Your task to perform on an android device: Look up the best rated 3d printer on Ali Express Image 0: 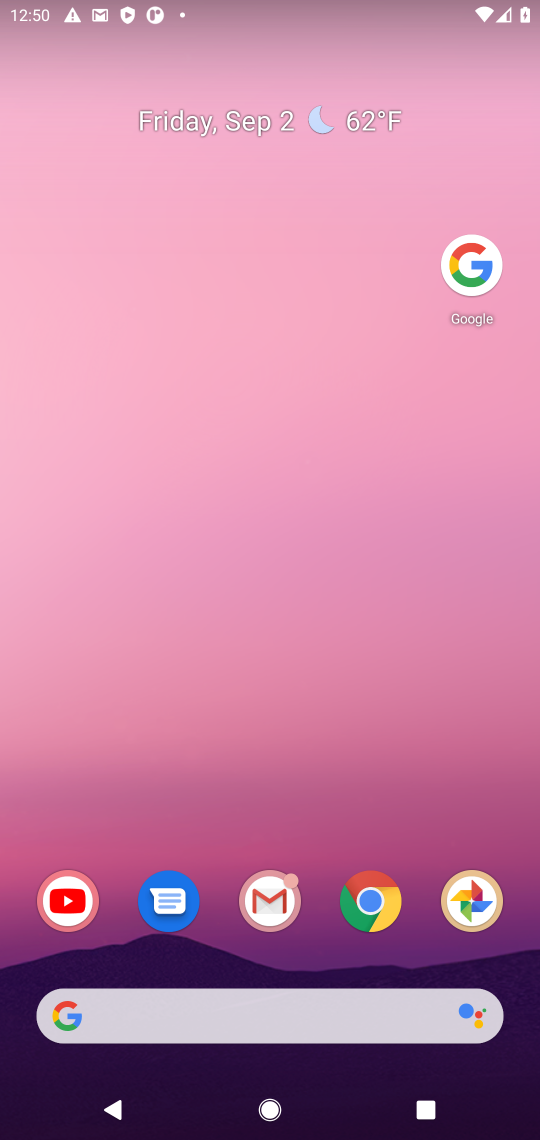
Step 0: click (467, 252)
Your task to perform on an android device: Look up the best rated 3d printer on Ali Express Image 1: 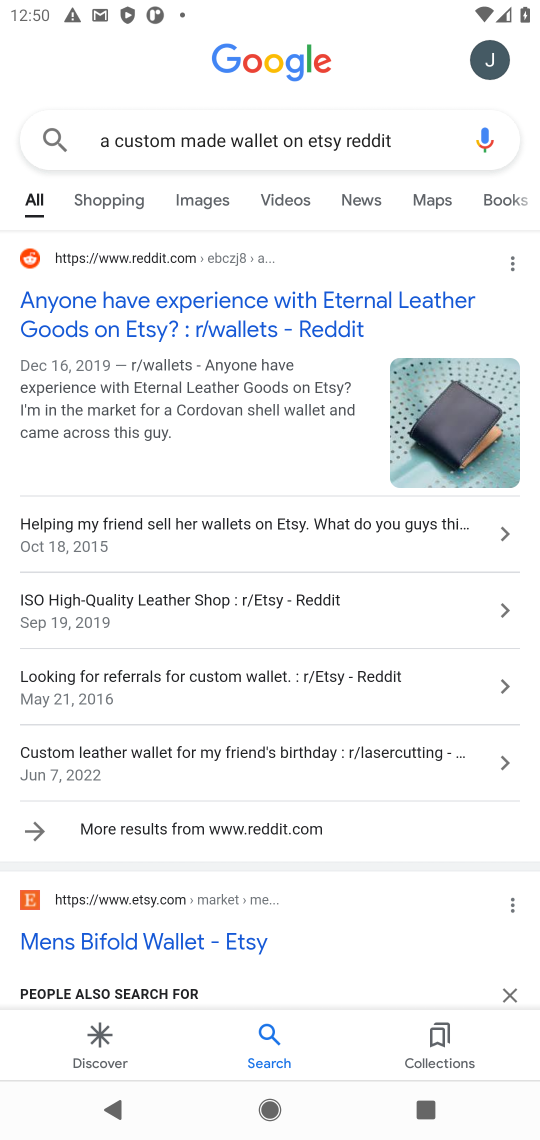
Step 1: click (392, 142)
Your task to perform on an android device: Look up the best rated 3d printer on Ali Express Image 2: 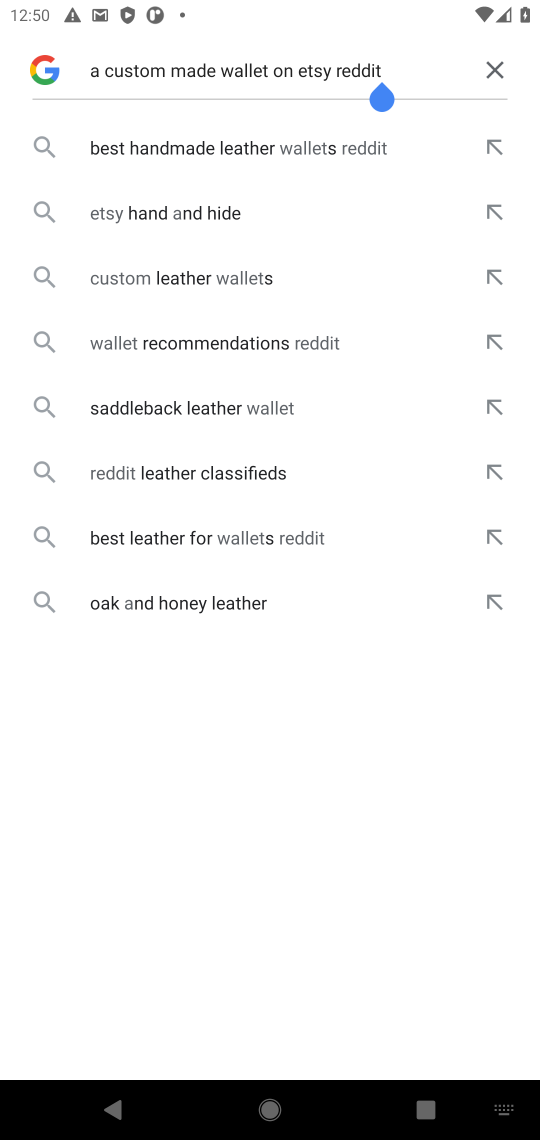
Step 2: click (487, 64)
Your task to perform on an android device: Look up the best rated 3d printer on Ali Express Image 3: 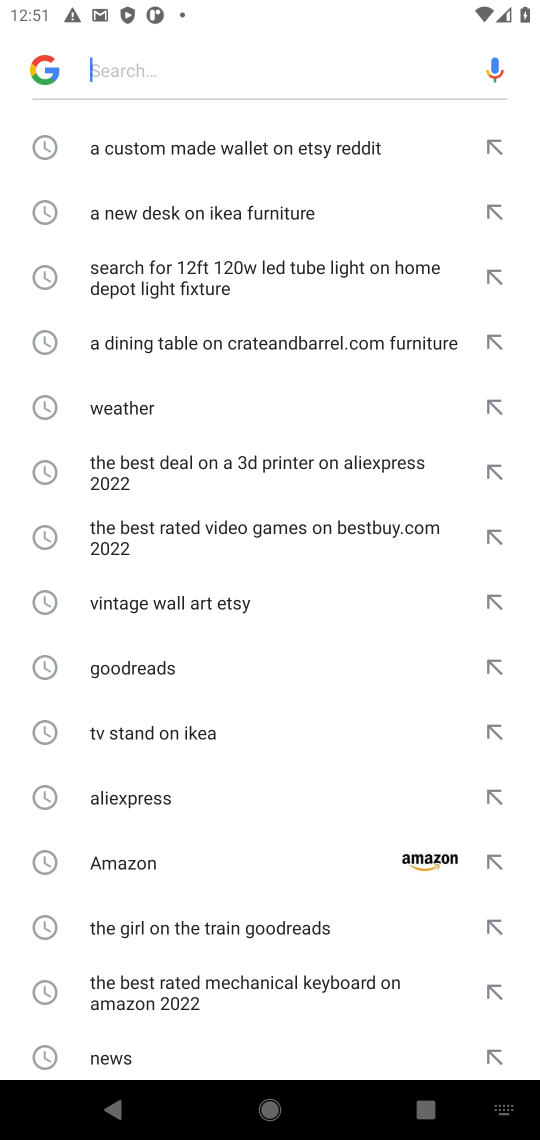
Step 3: click (277, 74)
Your task to perform on an android device: Look up the best rated 3d printer on Ali Express Image 4: 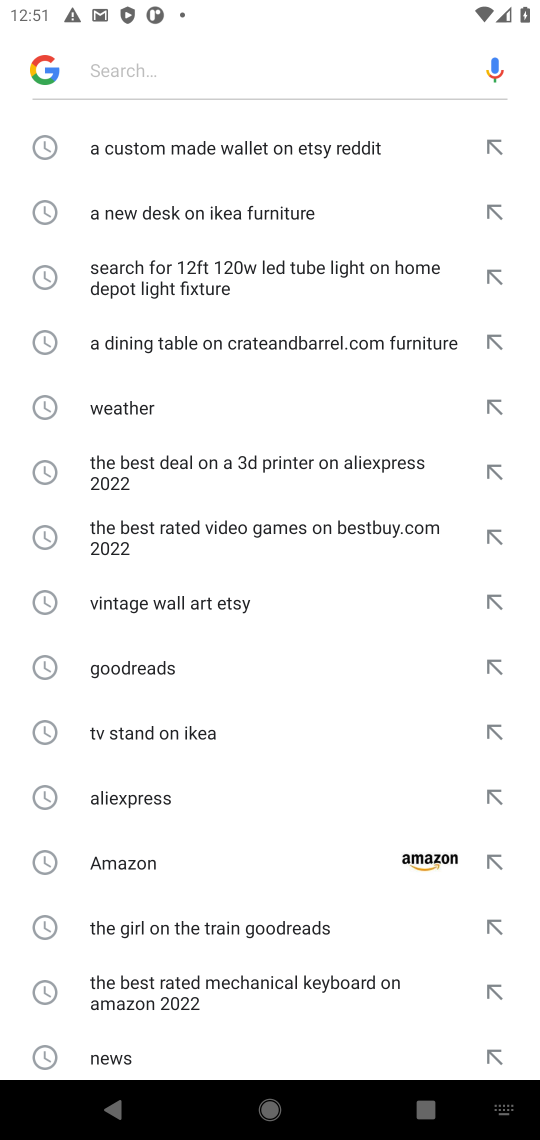
Step 4: type "the best rated 3d printer on Ali Express "
Your task to perform on an android device: Look up the best rated 3d printer on Ali Express Image 5: 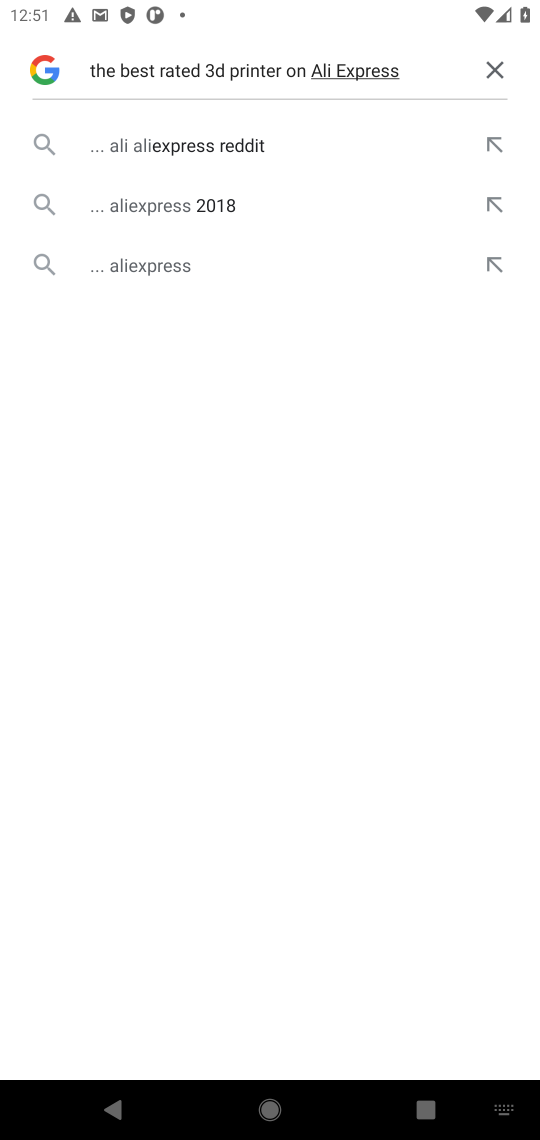
Step 5: click (143, 141)
Your task to perform on an android device: Look up the best rated 3d printer on Ali Express Image 6: 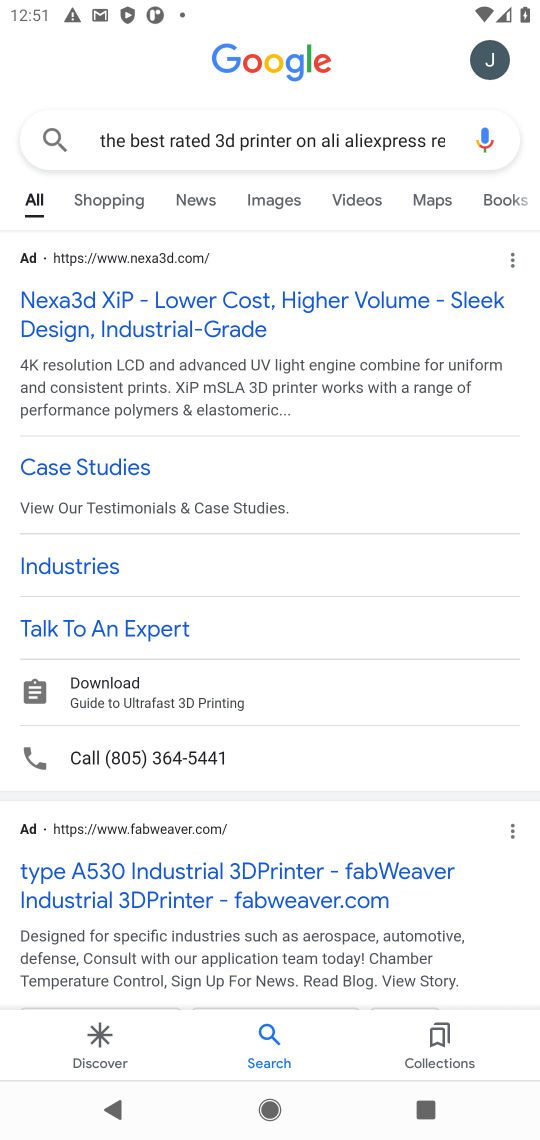
Step 6: click (180, 319)
Your task to perform on an android device: Look up the best rated 3d printer on Ali Express Image 7: 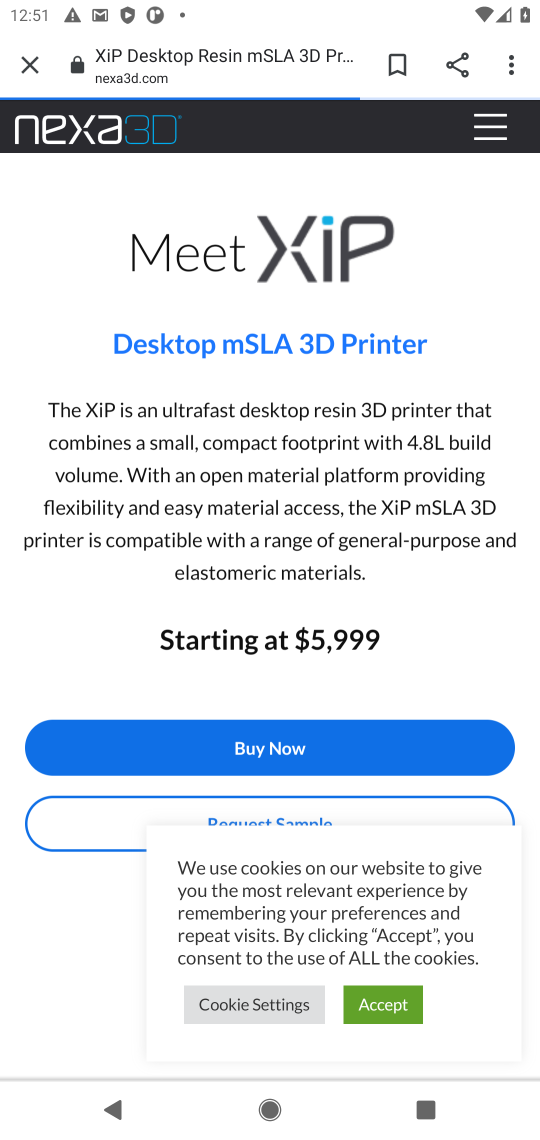
Step 7: click (24, 64)
Your task to perform on an android device: Look up the best rated 3d printer on Ali Express Image 8: 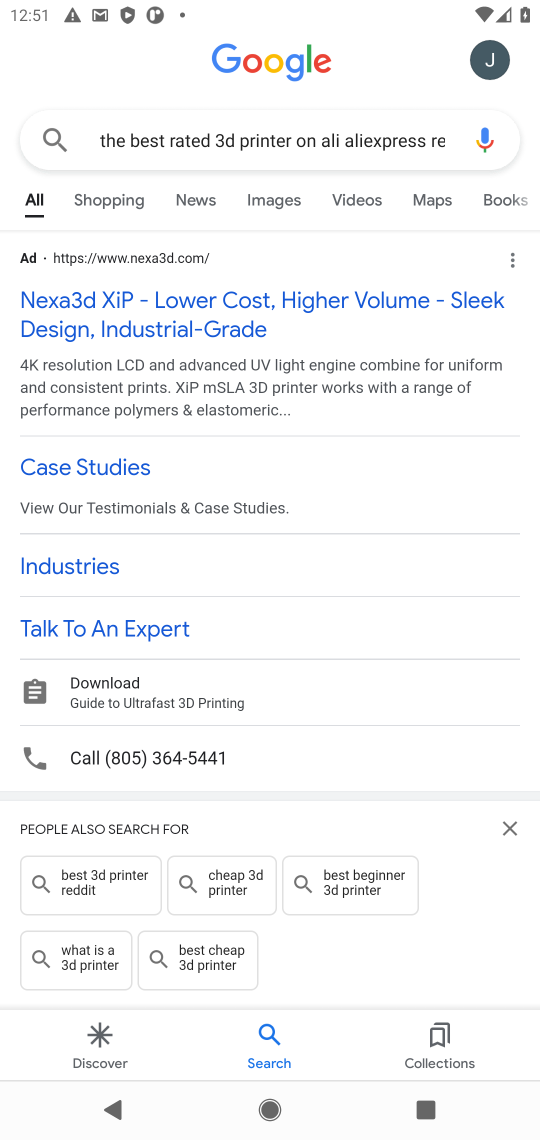
Step 8: drag from (226, 773) to (256, 210)
Your task to perform on an android device: Look up the best rated 3d printer on Ali Express Image 9: 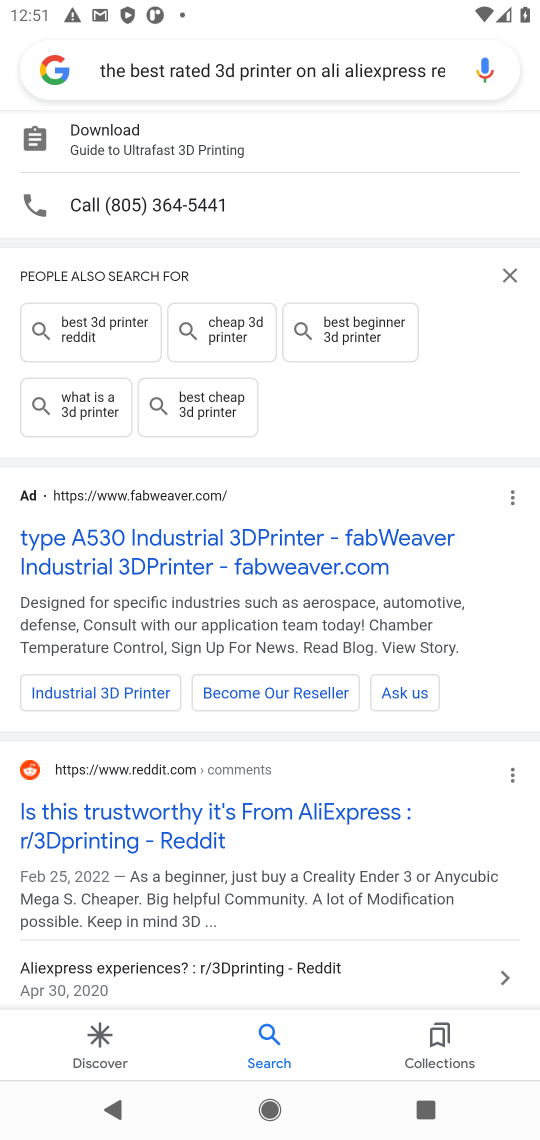
Step 9: drag from (160, 712) to (347, 134)
Your task to perform on an android device: Look up the best rated 3d printer on Ali Express Image 10: 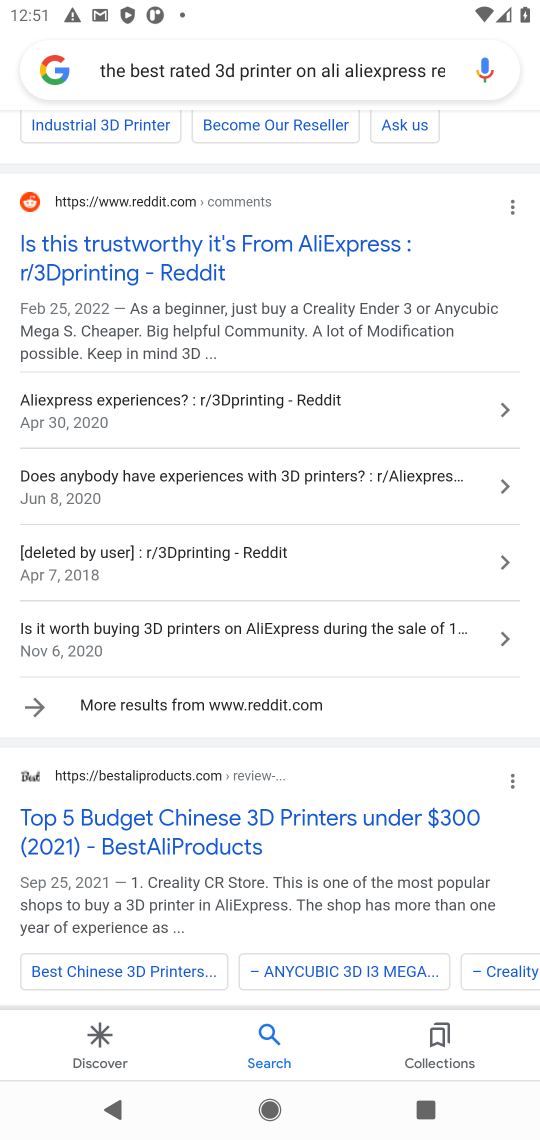
Step 10: drag from (235, 520) to (291, 330)
Your task to perform on an android device: Look up the best rated 3d printer on Ali Express Image 11: 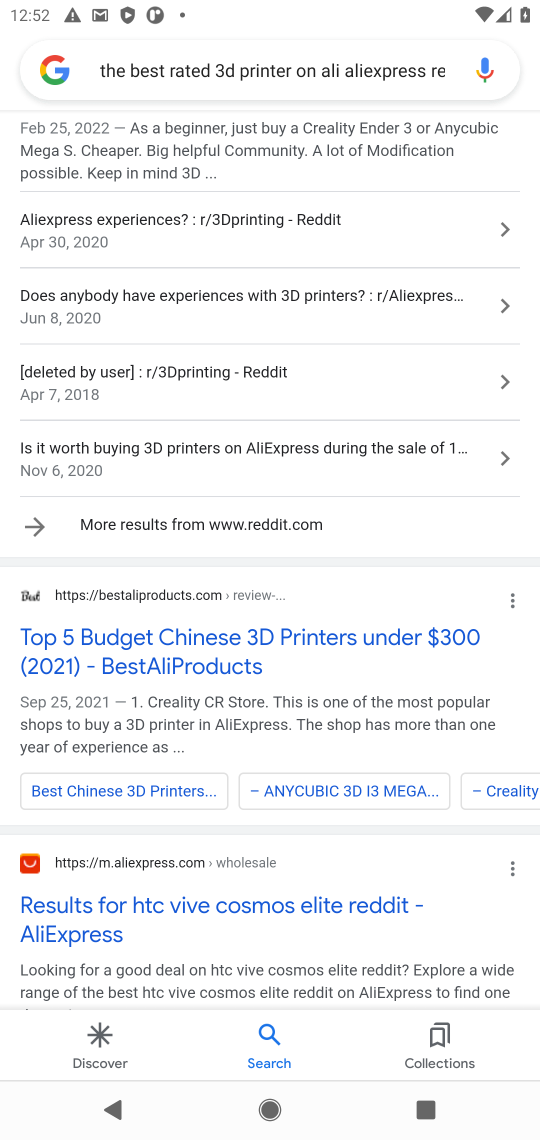
Step 11: click (62, 912)
Your task to perform on an android device: Look up the best rated 3d printer on Ali Express Image 12: 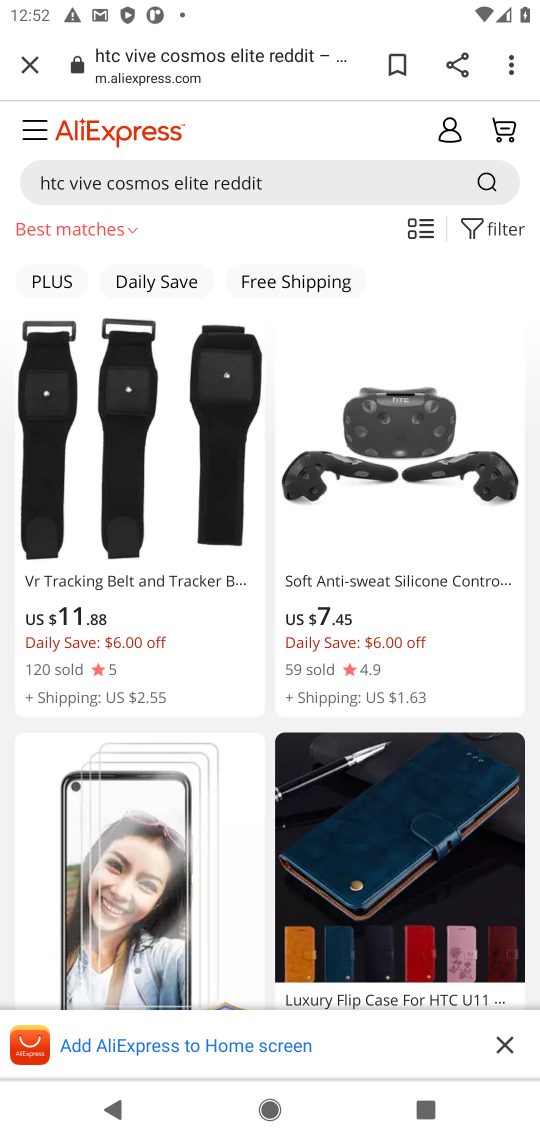
Step 12: click (291, 161)
Your task to perform on an android device: Look up the best rated 3d printer on Ali Express Image 13: 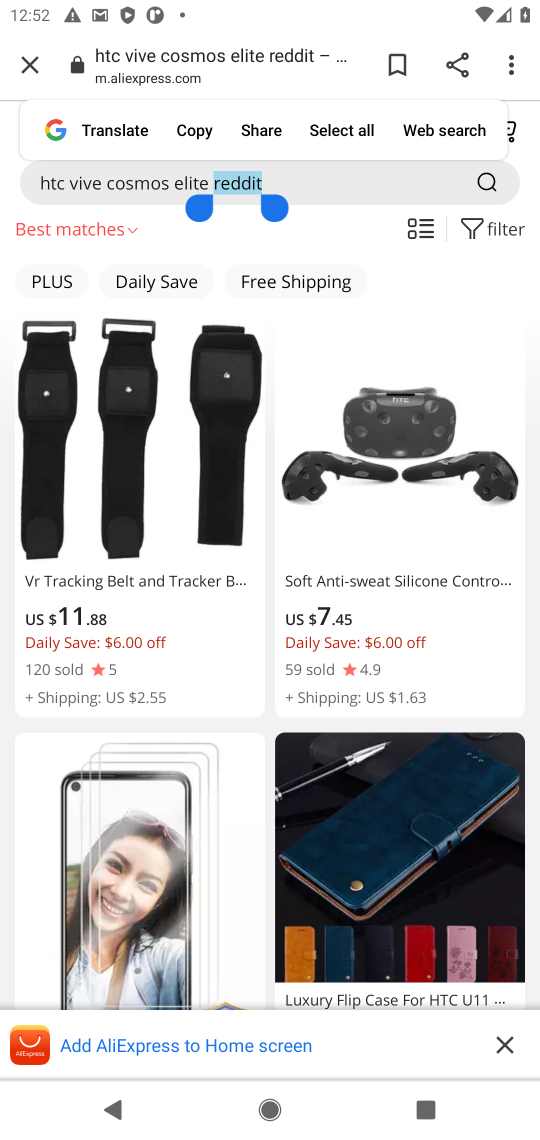
Step 13: click (303, 181)
Your task to perform on an android device: Look up the best rated 3d printer on Ali Express Image 14: 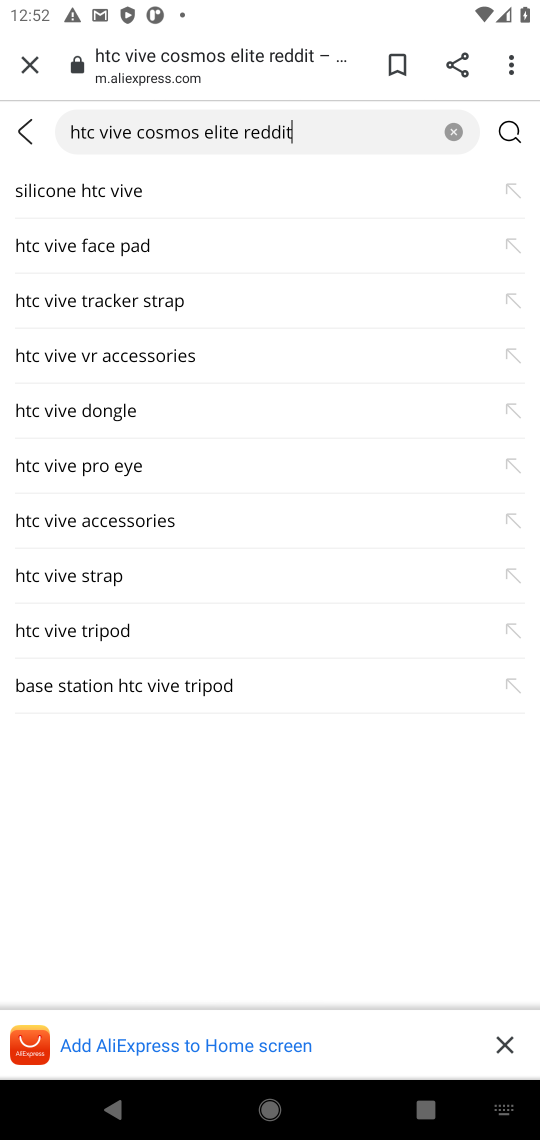
Step 14: click (483, 175)
Your task to perform on an android device: Look up the best rated 3d printer on Ali Express Image 15: 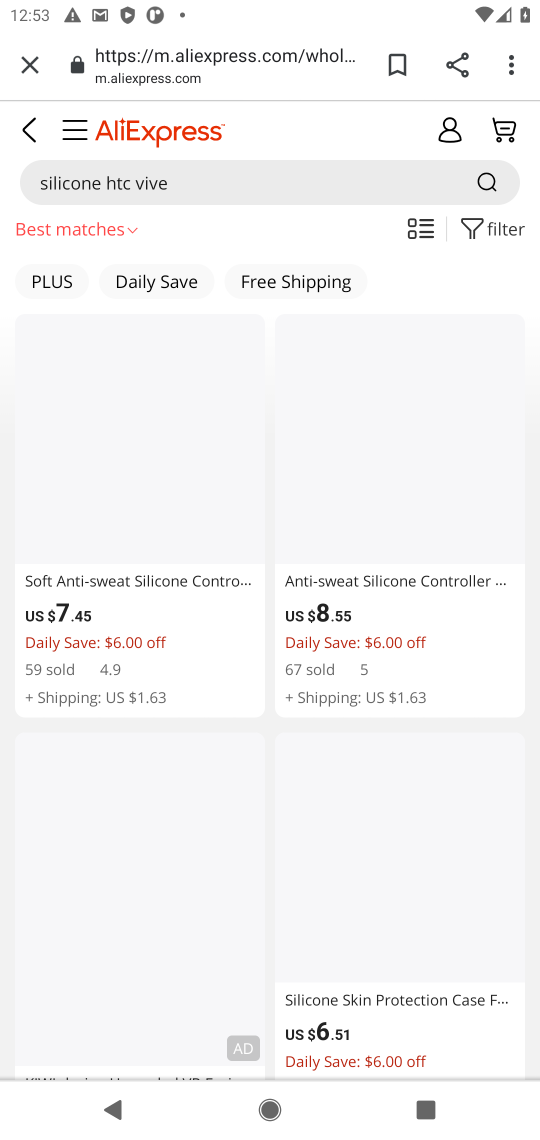
Step 15: click (314, 181)
Your task to perform on an android device: Look up the best rated 3d printer on Ali Express Image 16: 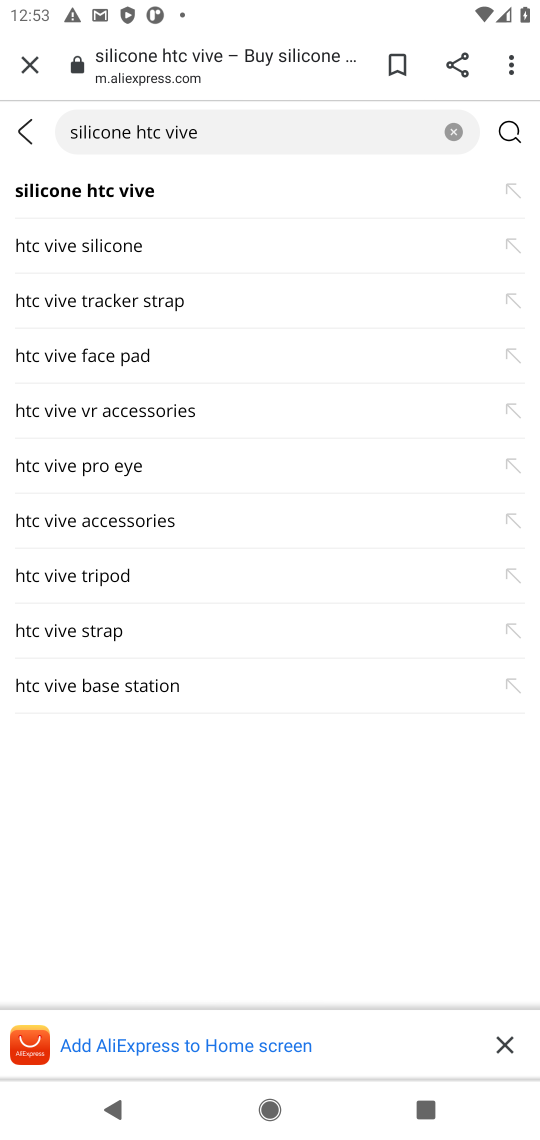
Step 16: click (453, 129)
Your task to perform on an android device: Look up the best rated 3d printer on Ali Express Image 17: 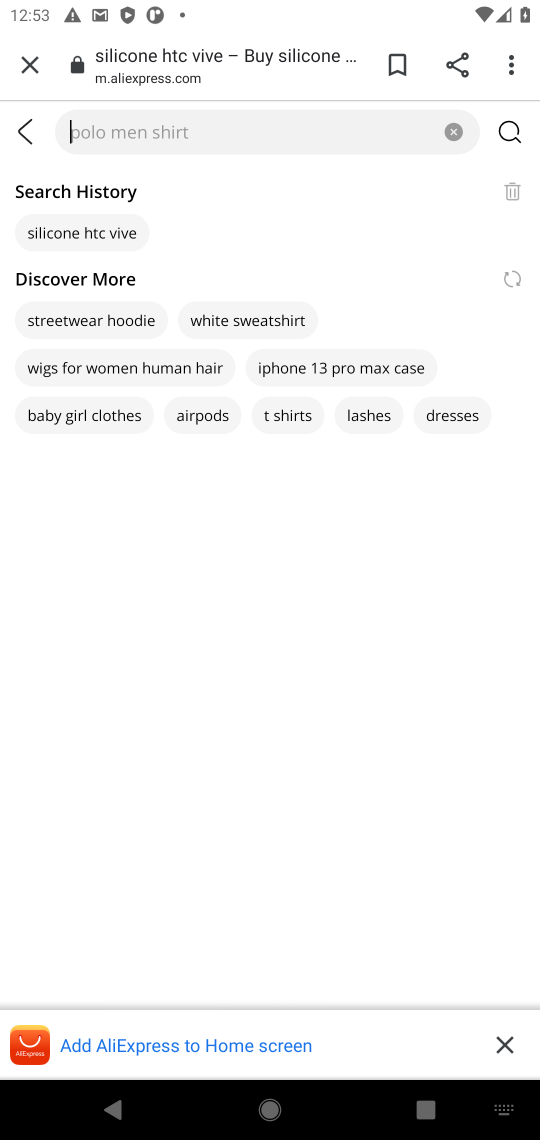
Step 17: click (229, 118)
Your task to perform on an android device: Look up the best rated 3d printer on Ali Express Image 18: 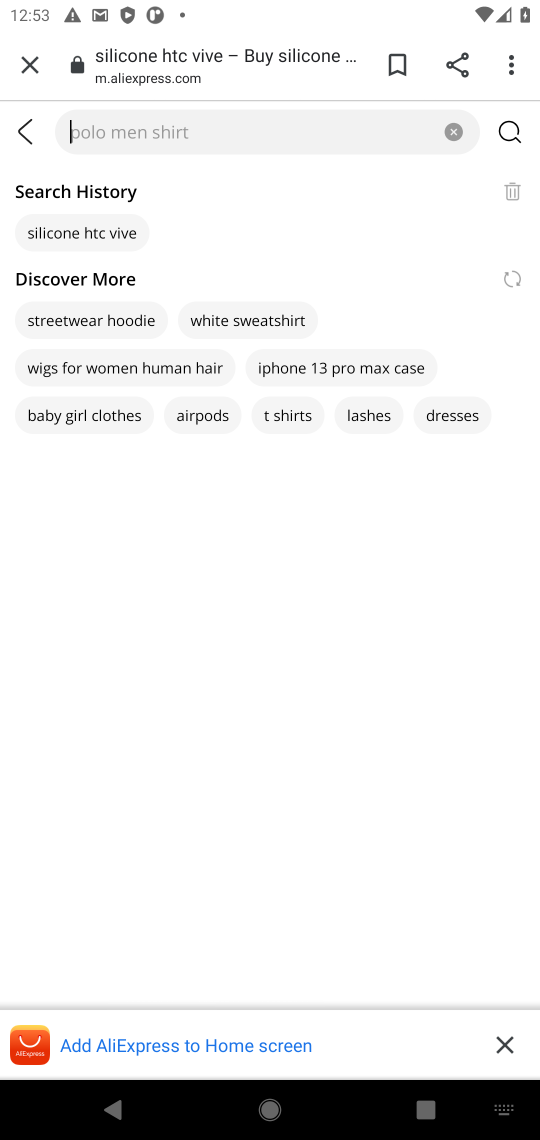
Step 18: click (244, 119)
Your task to perform on an android device: Look up the best rated 3d printer on Ali Express Image 19: 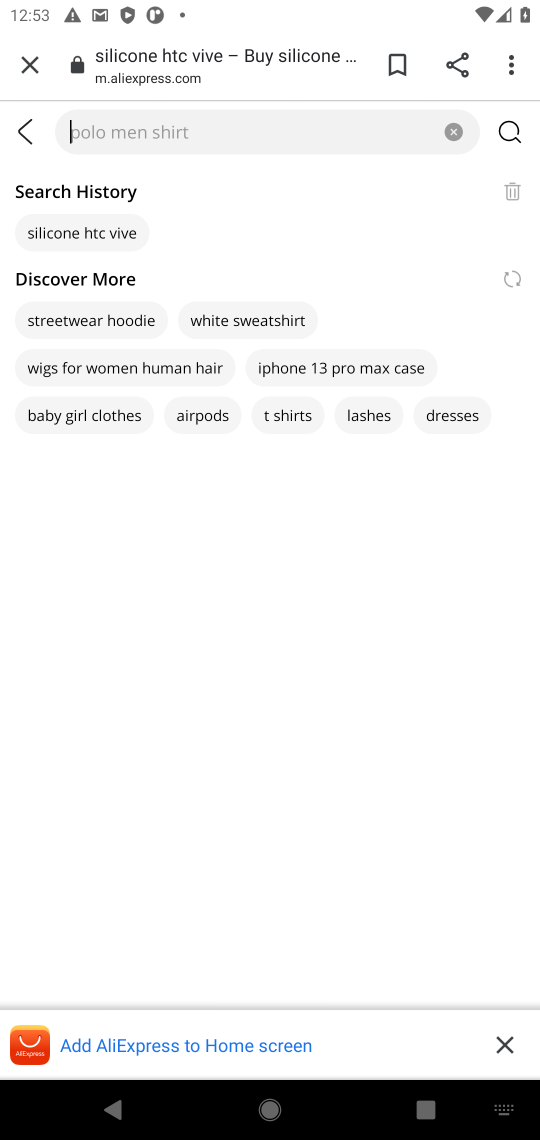
Step 19: type "3d printer  "
Your task to perform on an android device: Look up the best rated 3d printer on Ali Express Image 20: 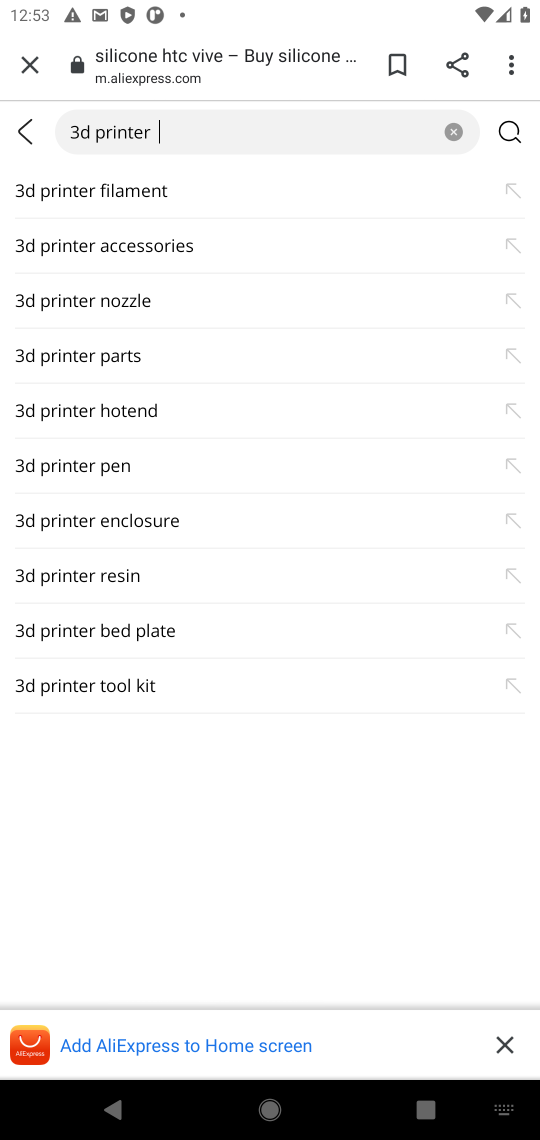
Step 20: click (145, 194)
Your task to perform on an android device: Look up the best rated 3d printer on Ali Express Image 21: 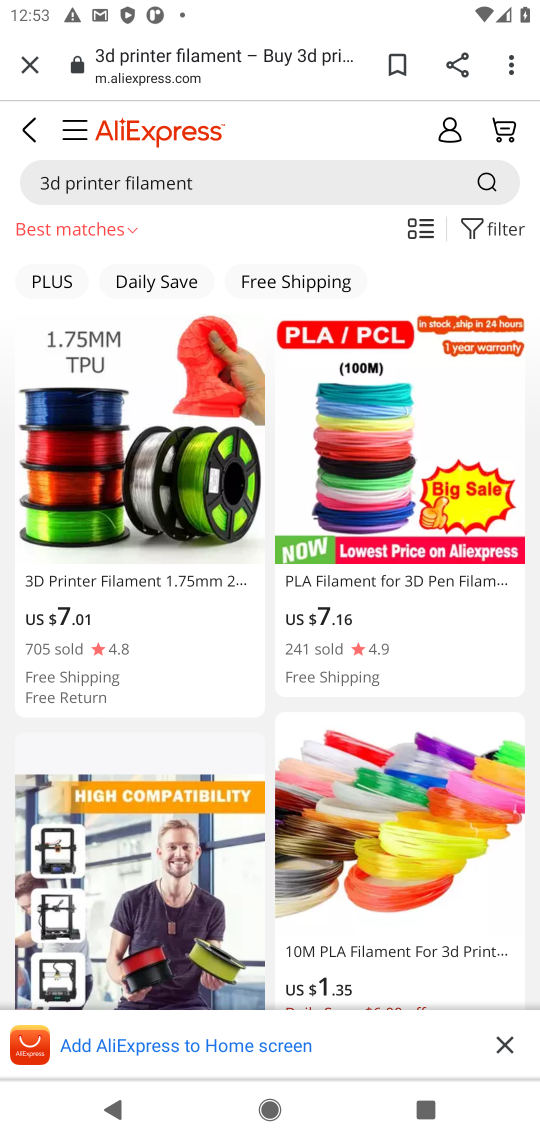
Step 21: click (266, 185)
Your task to perform on an android device: Look up the best rated 3d printer on Ali Express Image 22: 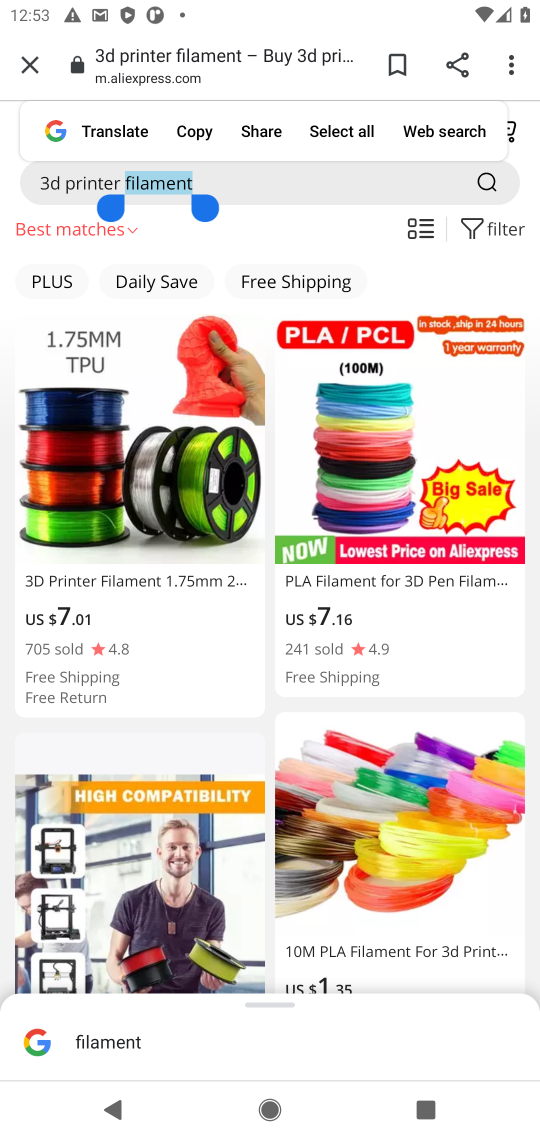
Step 22: click (217, 187)
Your task to perform on an android device: Look up the best rated 3d printer on Ali Express Image 23: 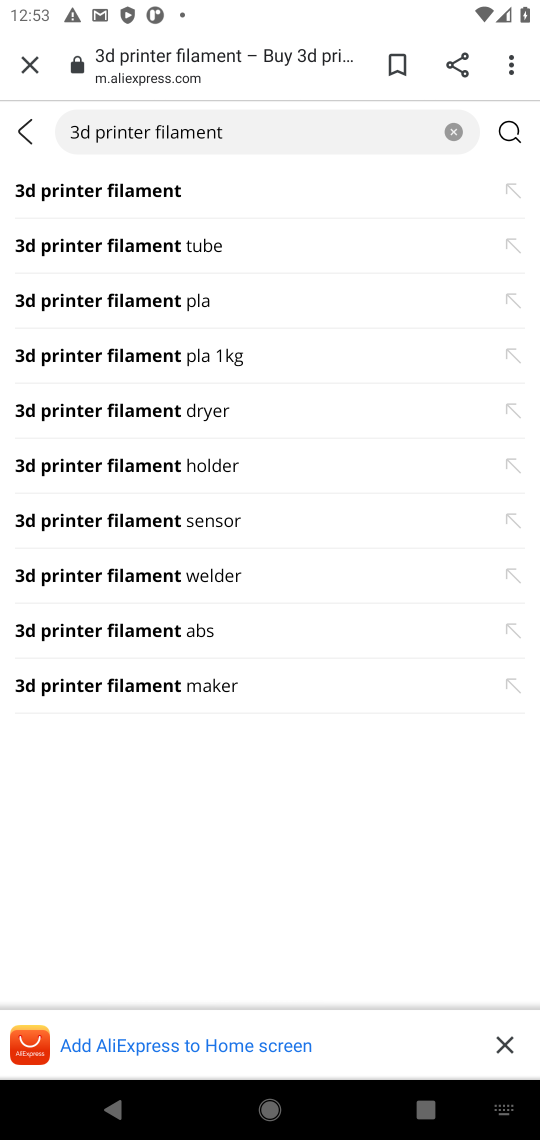
Step 23: click (441, 130)
Your task to perform on an android device: Look up the best rated 3d printer on Ali Express Image 24: 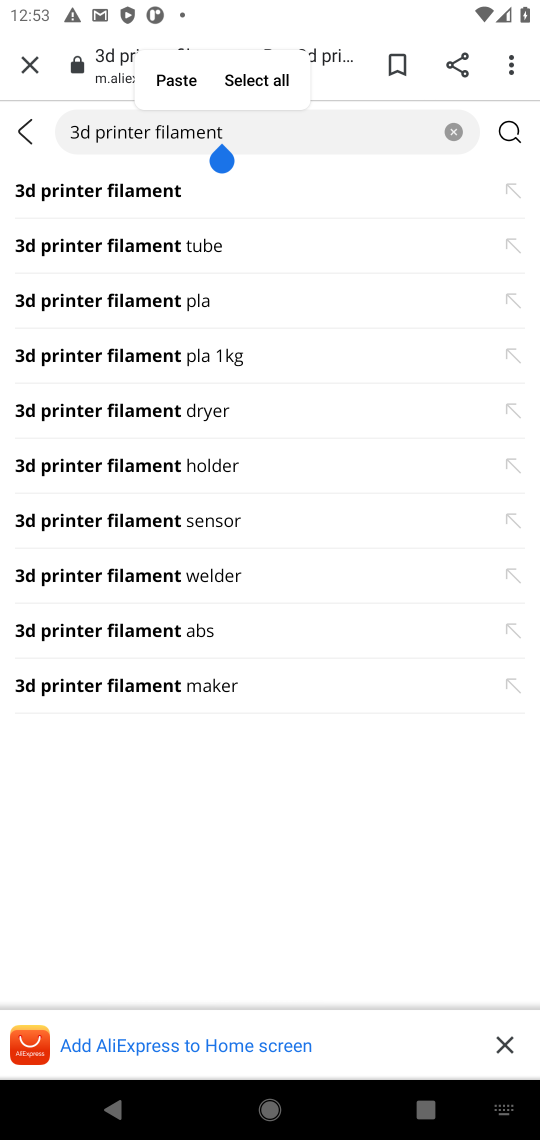
Step 24: click (450, 125)
Your task to perform on an android device: Look up the best rated 3d printer on Ali Express Image 25: 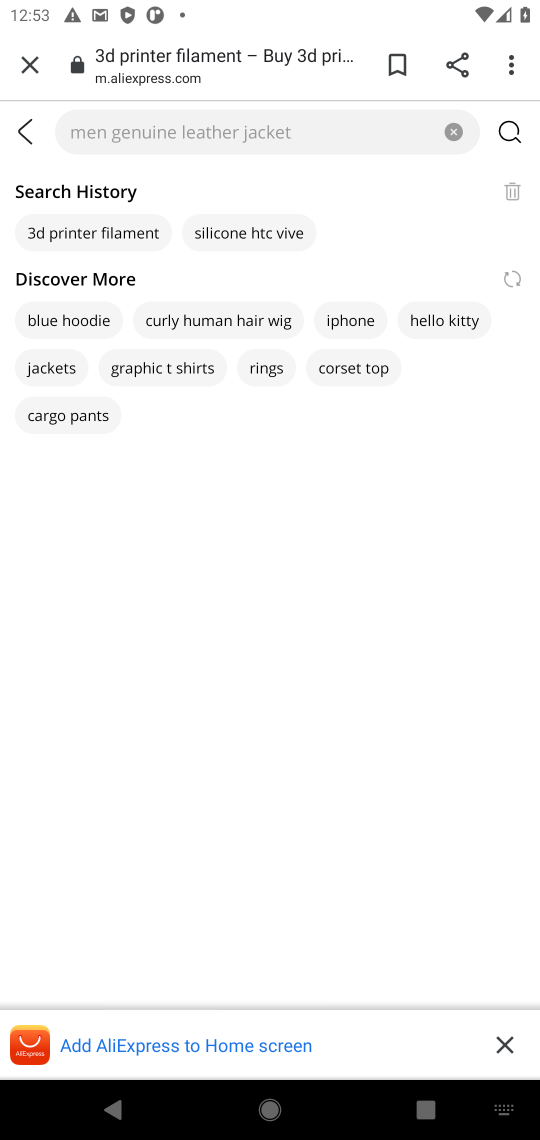
Step 25: click (271, 112)
Your task to perform on an android device: Look up the best rated 3d printer on Ali Express Image 26: 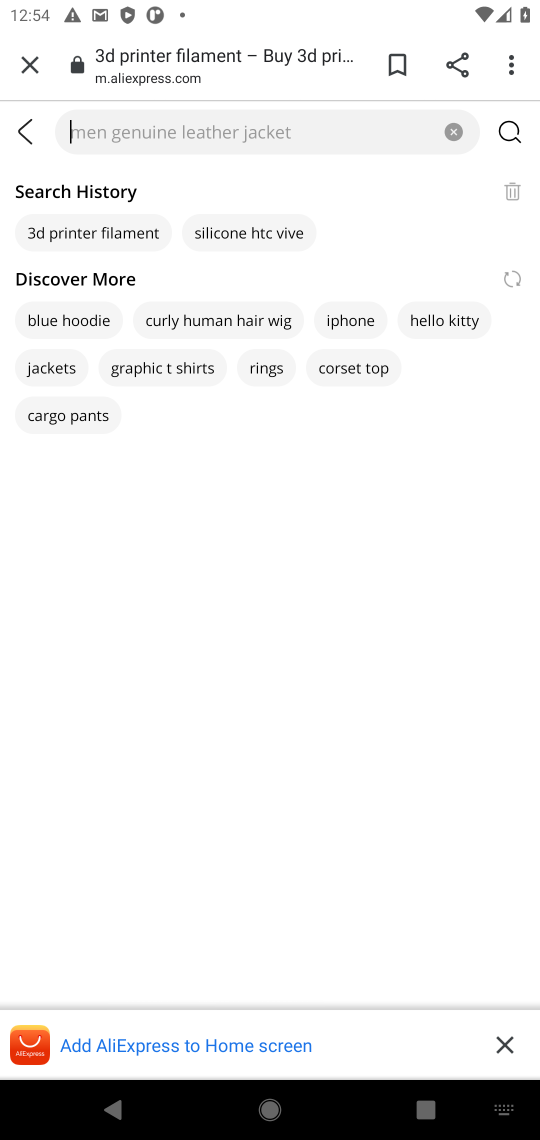
Step 26: click (253, 128)
Your task to perform on an android device: Look up the best rated 3d printer on Ali Express Image 27: 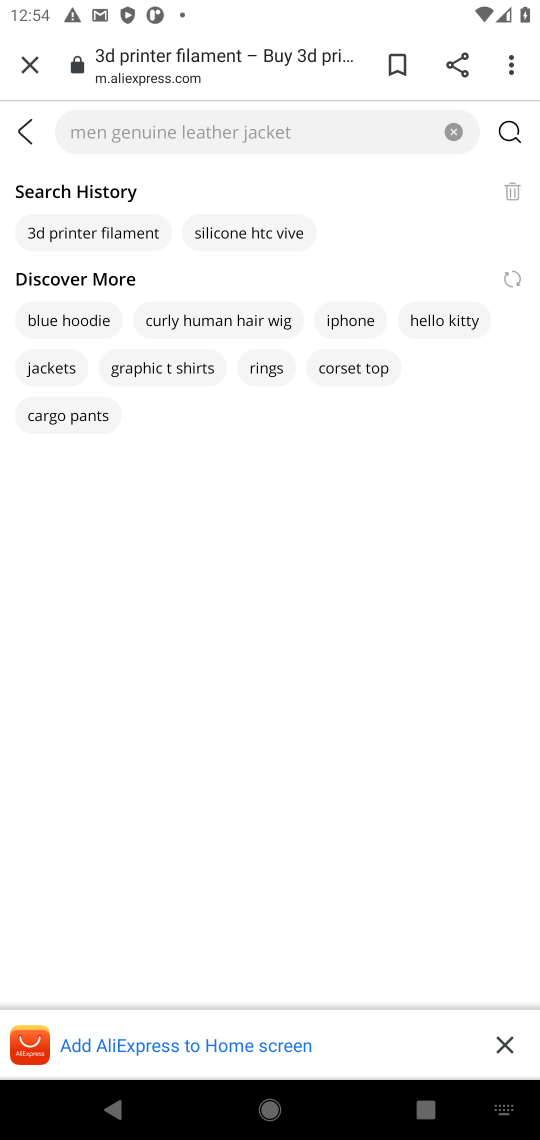
Step 27: type "3d printer "
Your task to perform on an android device: Look up the best rated 3d printer on Ali Express Image 28: 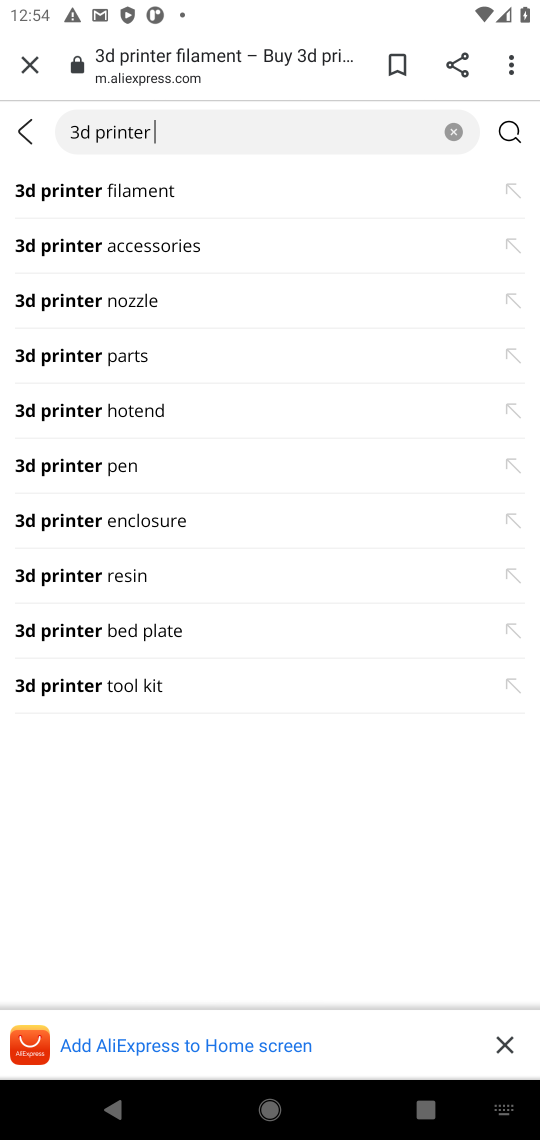
Step 28: click (505, 135)
Your task to perform on an android device: Look up the best rated 3d printer on Ali Express Image 29: 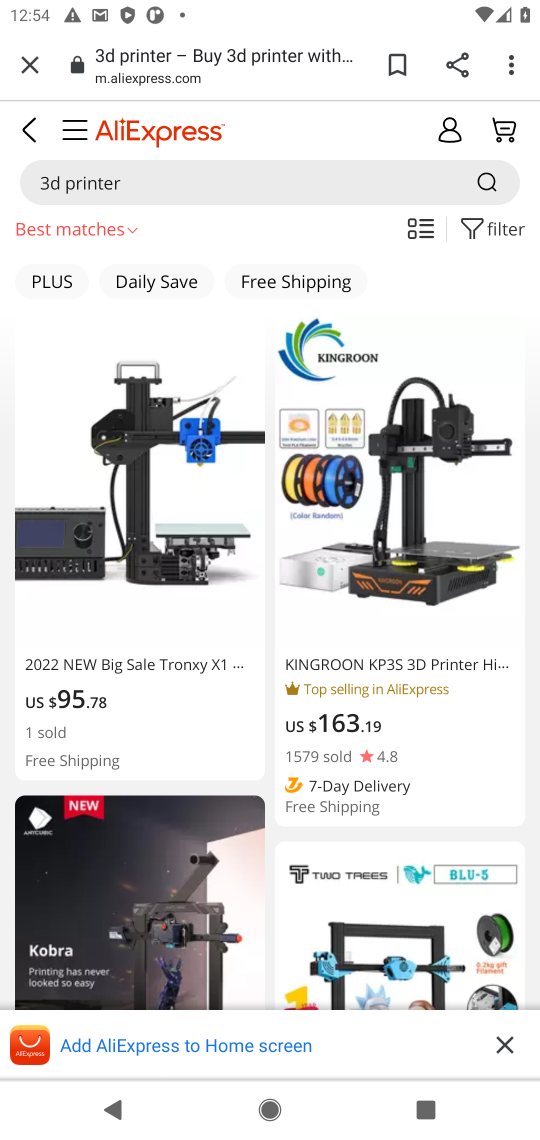
Step 29: task complete